Your task to perform on an android device: turn off translation in the chrome app Image 0: 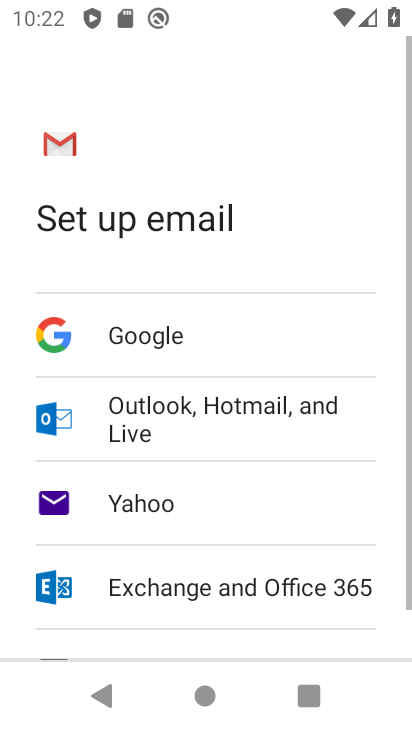
Step 0: press home button
Your task to perform on an android device: turn off translation in the chrome app Image 1: 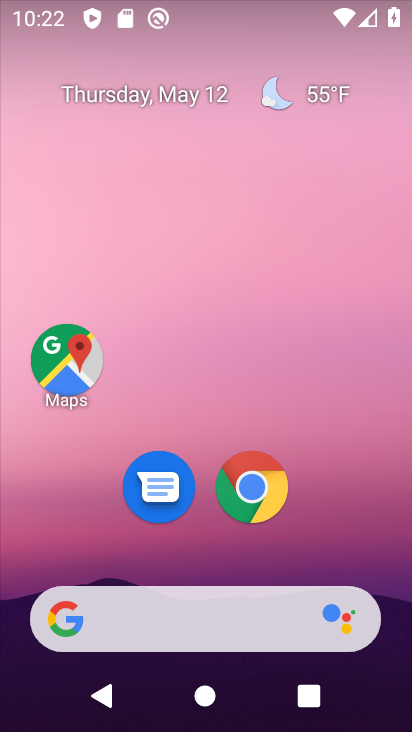
Step 1: click (252, 488)
Your task to perform on an android device: turn off translation in the chrome app Image 2: 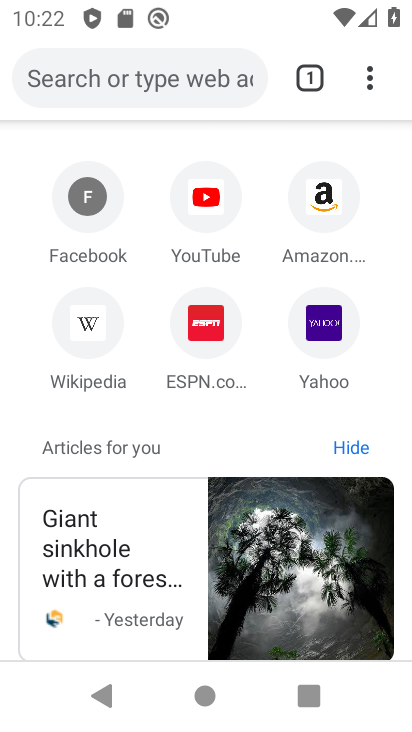
Step 2: drag from (371, 77) to (124, 548)
Your task to perform on an android device: turn off translation in the chrome app Image 3: 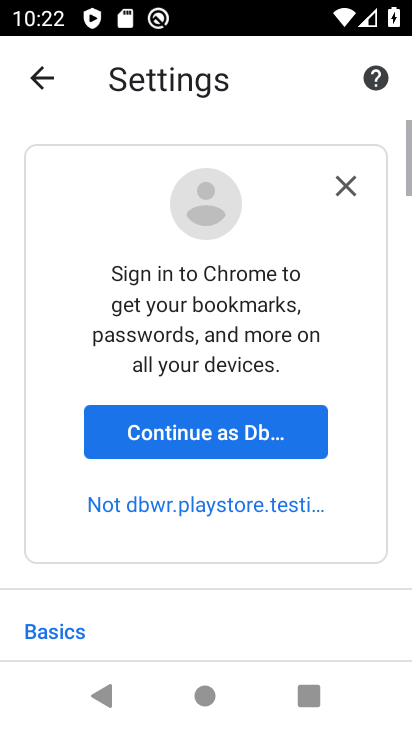
Step 3: drag from (210, 628) to (216, 3)
Your task to perform on an android device: turn off translation in the chrome app Image 4: 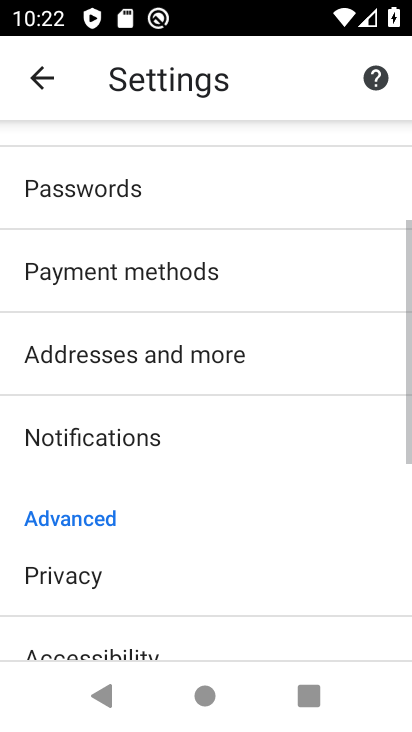
Step 4: drag from (179, 530) to (179, 2)
Your task to perform on an android device: turn off translation in the chrome app Image 5: 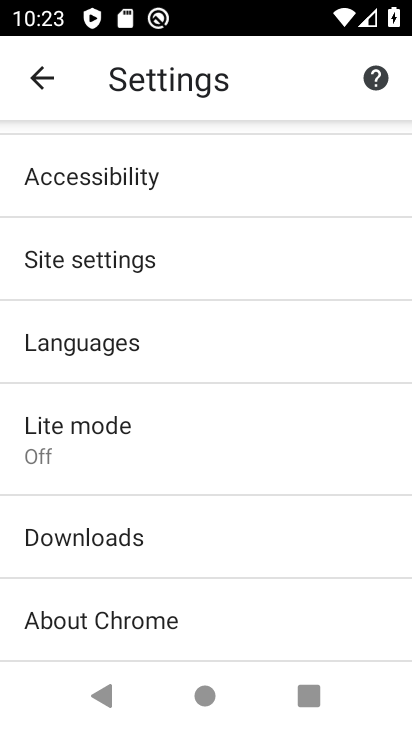
Step 5: click (75, 356)
Your task to perform on an android device: turn off translation in the chrome app Image 6: 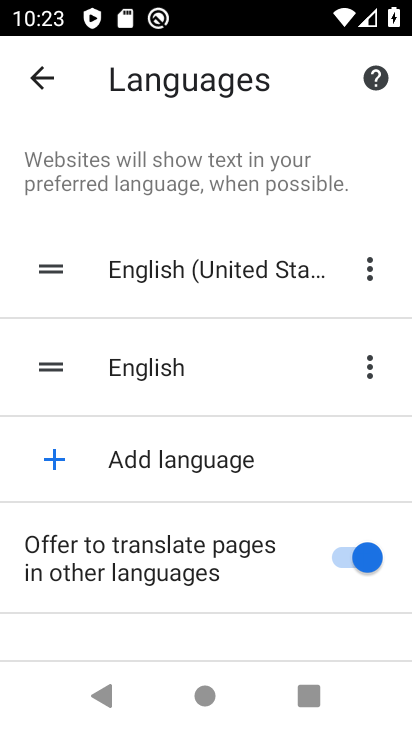
Step 6: click (365, 559)
Your task to perform on an android device: turn off translation in the chrome app Image 7: 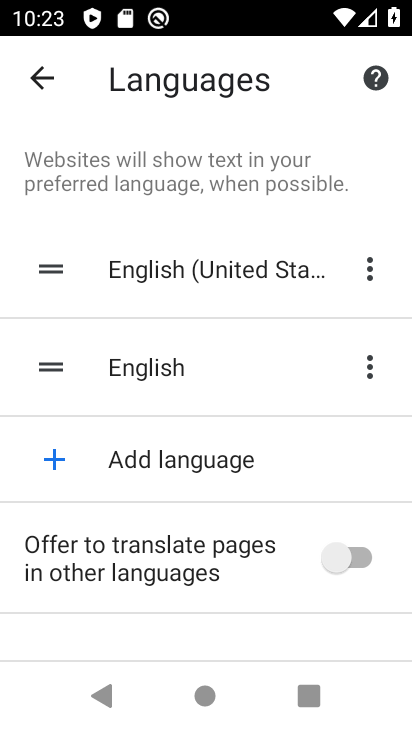
Step 7: task complete